Your task to perform on an android device: turn off sleep mode Image 0: 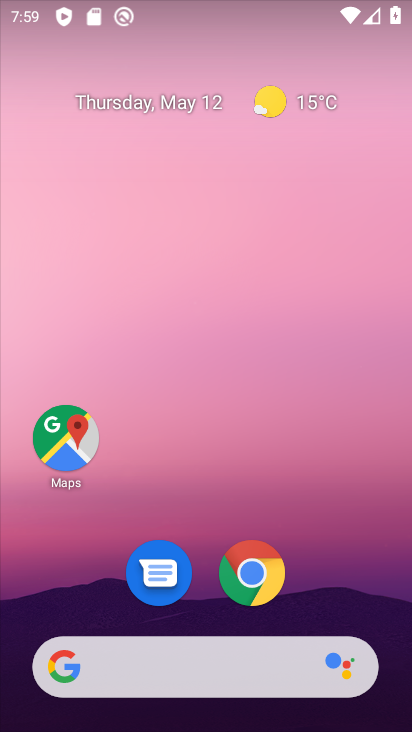
Step 0: drag from (331, 537) to (212, 134)
Your task to perform on an android device: turn off sleep mode Image 1: 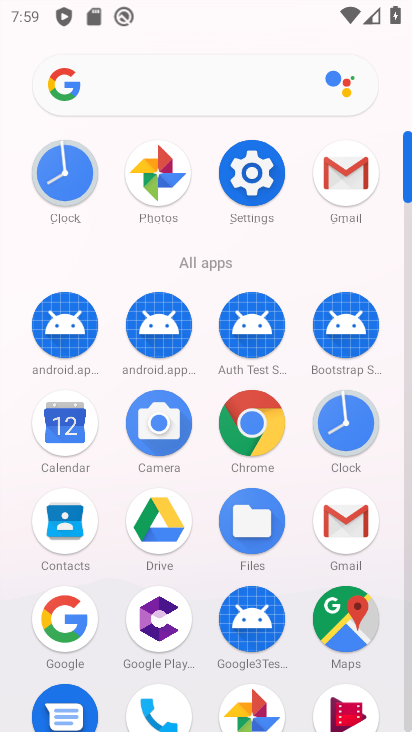
Step 1: click (255, 182)
Your task to perform on an android device: turn off sleep mode Image 2: 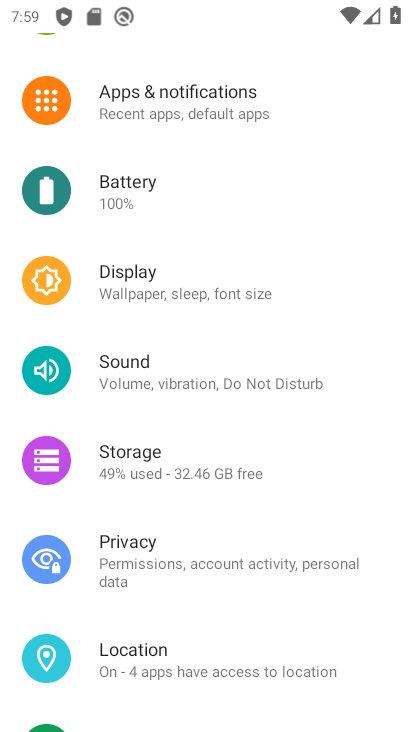
Step 2: click (144, 252)
Your task to perform on an android device: turn off sleep mode Image 3: 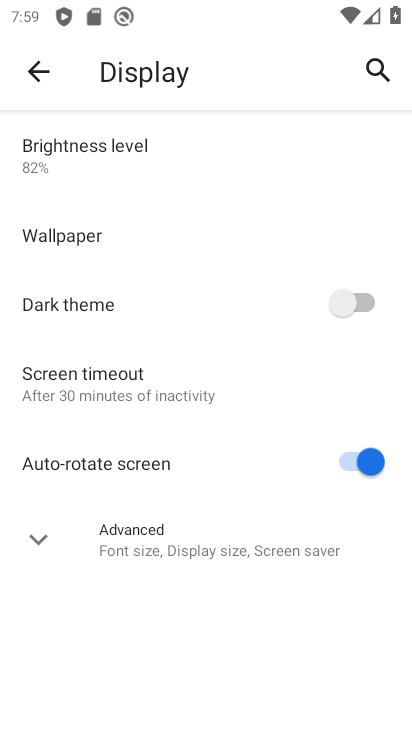
Step 3: task complete